Your task to perform on an android device: refresh tabs in the chrome app Image 0: 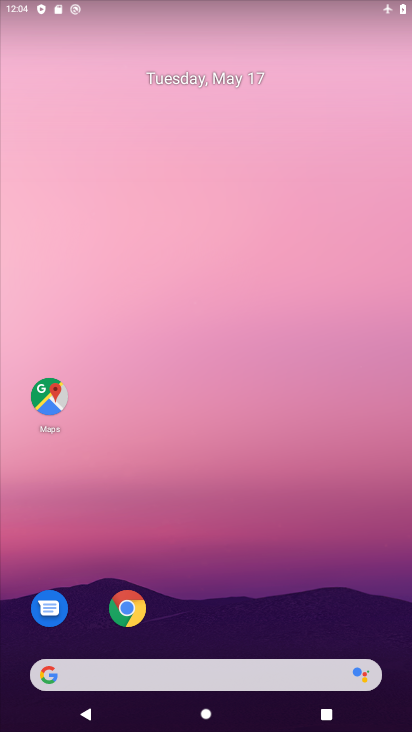
Step 0: click (113, 618)
Your task to perform on an android device: refresh tabs in the chrome app Image 1: 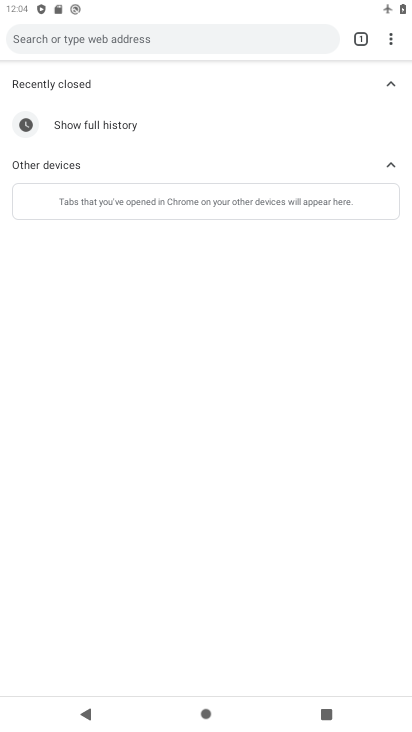
Step 1: click (389, 37)
Your task to perform on an android device: refresh tabs in the chrome app Image 2: 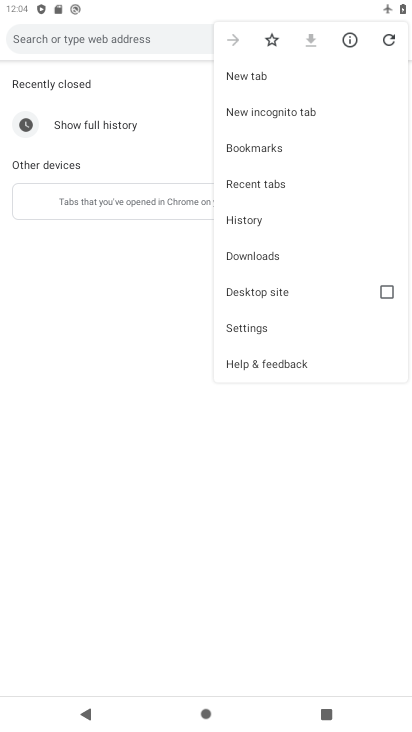
Step 2: click (382, 38)
Your task to perform on an android device: refresh tabs in the chrome app Image 3: 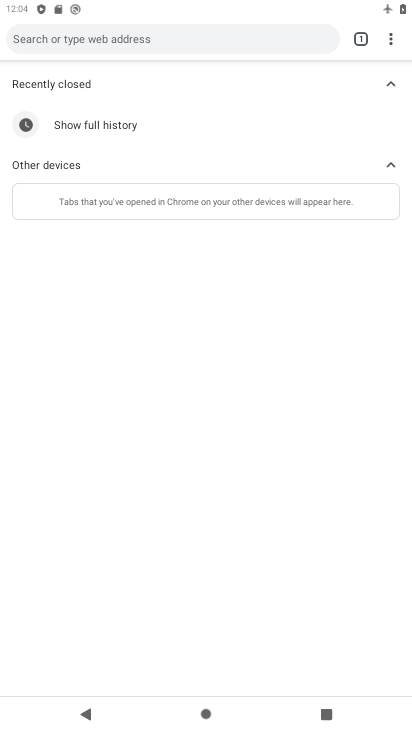
Step 3: task complete